Your task to perform on an android device: open sync settings in chrome Image 0: 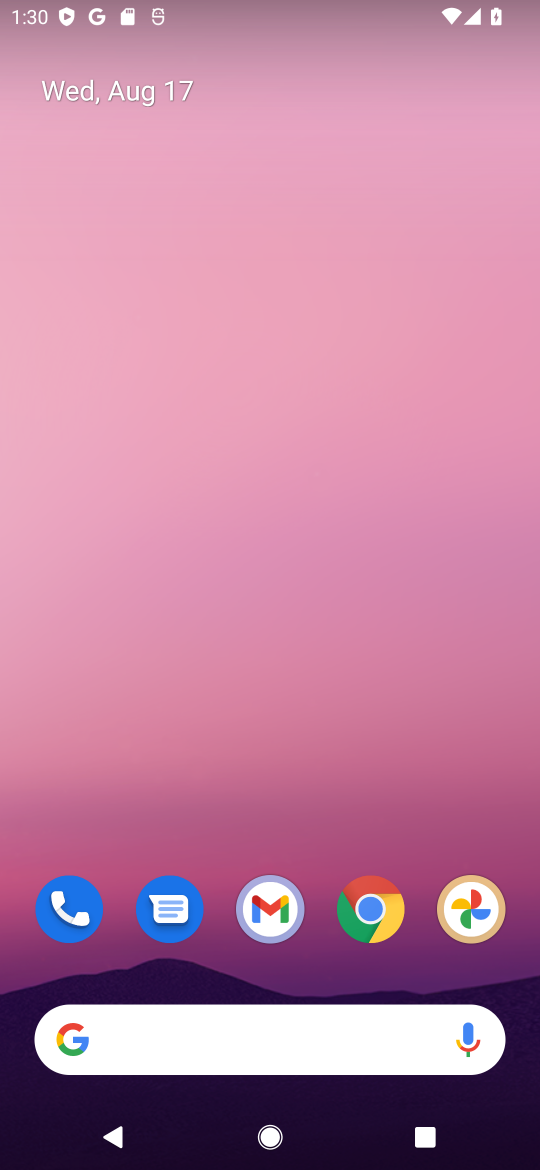
Step 0: click (380, 915)
Your task to perform on an android device: open sync settings in chrome Image 1: 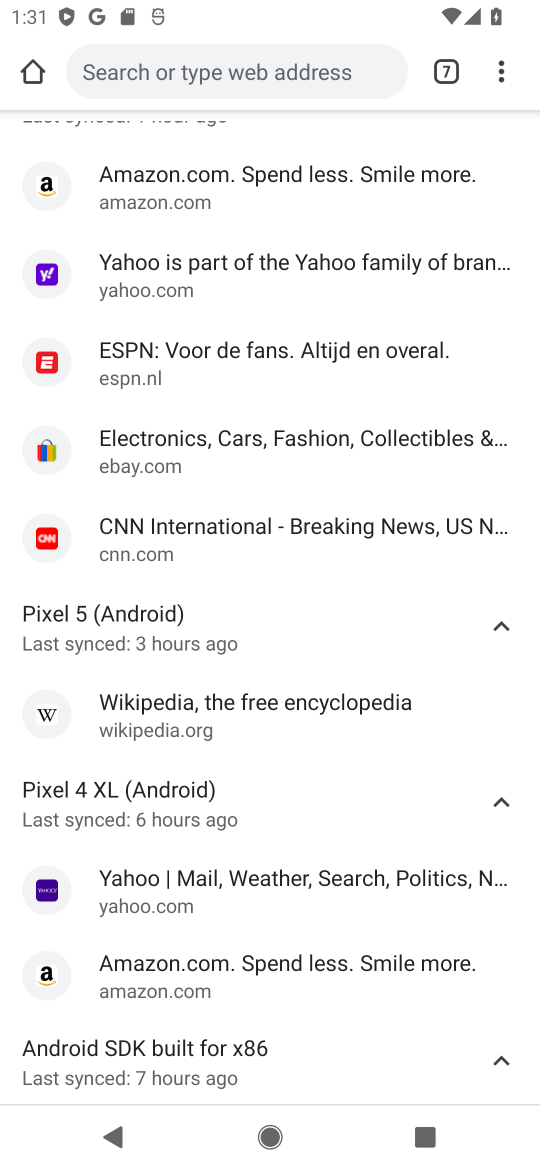
Step 1: click (497, 71)
Your task to perform on an android device: open sync settings in chrome Image 2: 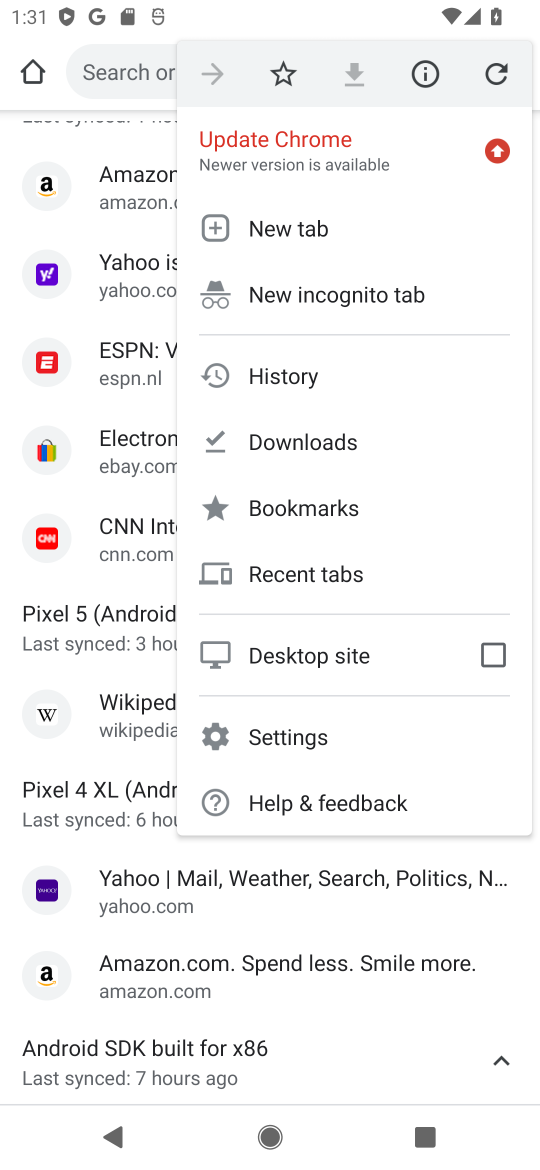
Step 2: click (280, 734)
Your task to perform on an android device: open sync settings in chrome Image 3: 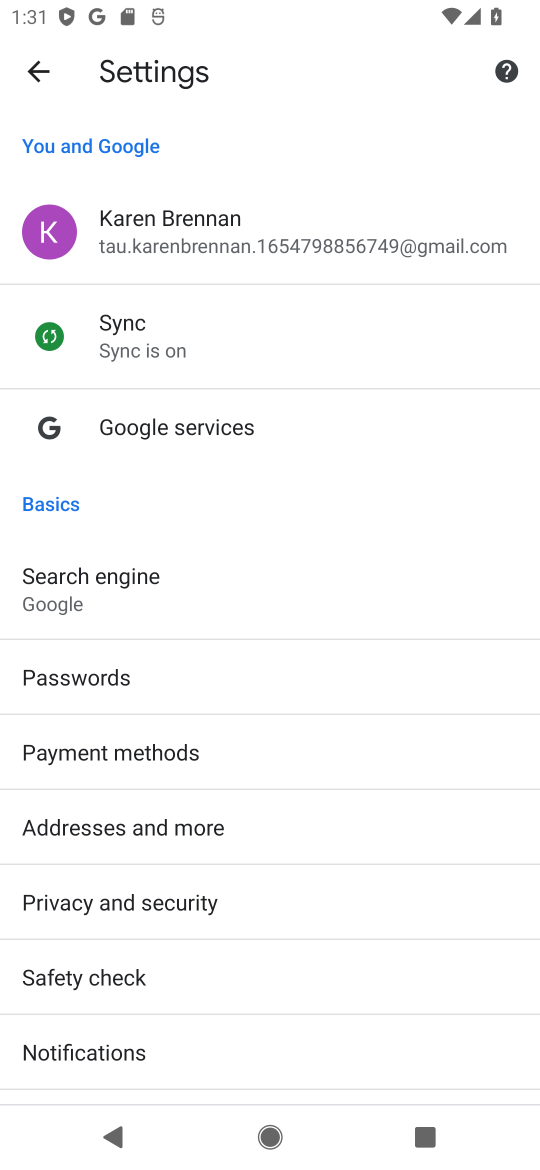
Step 3: click (119, 320)
Your task to perform on an android device: open sync settings in chrome Image 4: 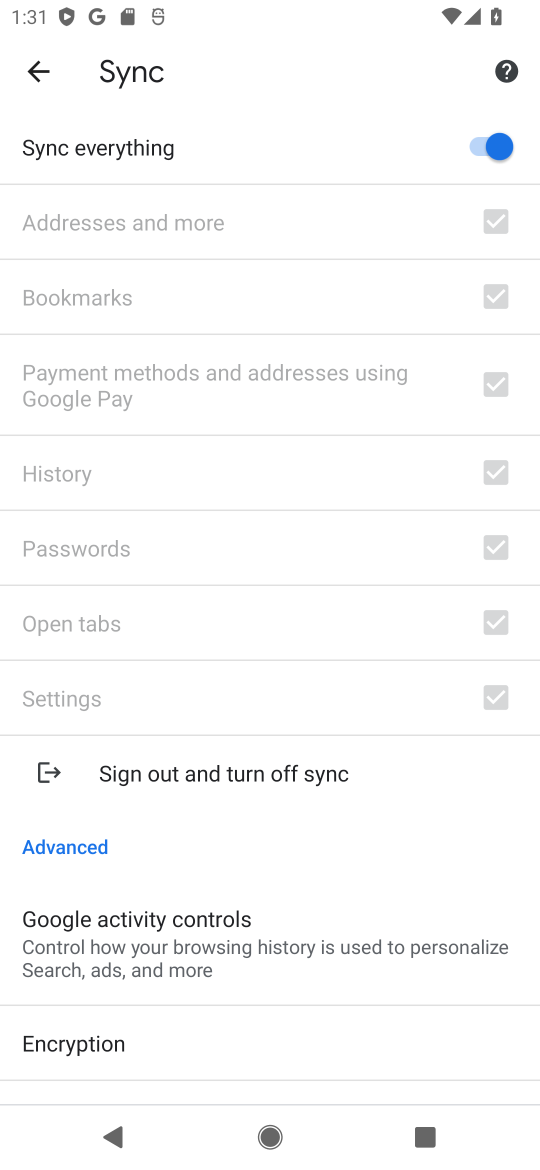
Step 4: task complete